Your task to perform on an android device: clear all cookies in the chrome app Image 0: 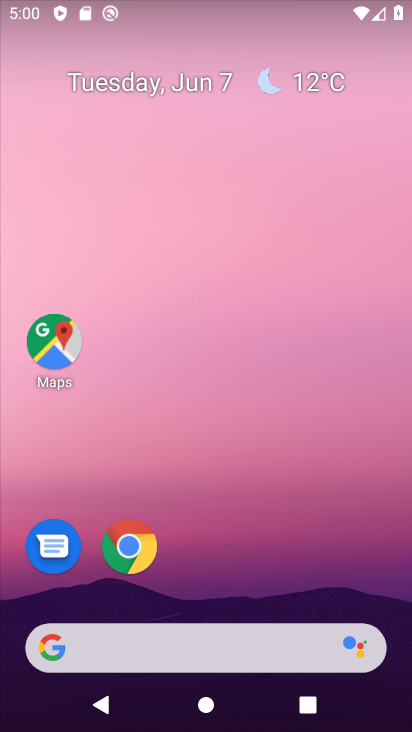
Step 0: drag from (272, 600) to (363, 54)
Your task to perform on an android device: clear all cookies in the chrome app Image 1: 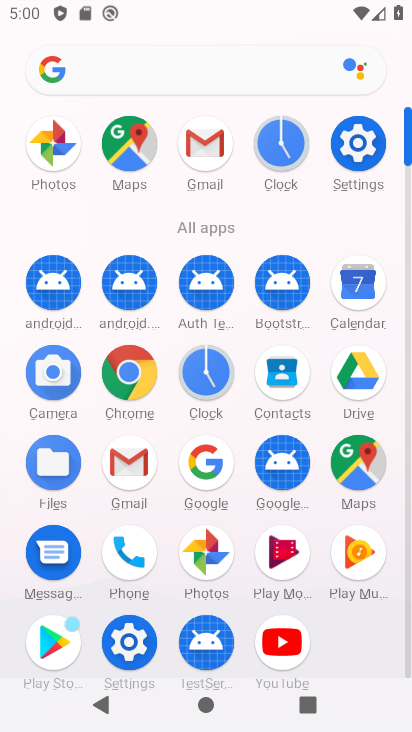
Step 1: click (137, 376)
Your task to perform on an android device: clear all cookies in the chrome app Image 2: 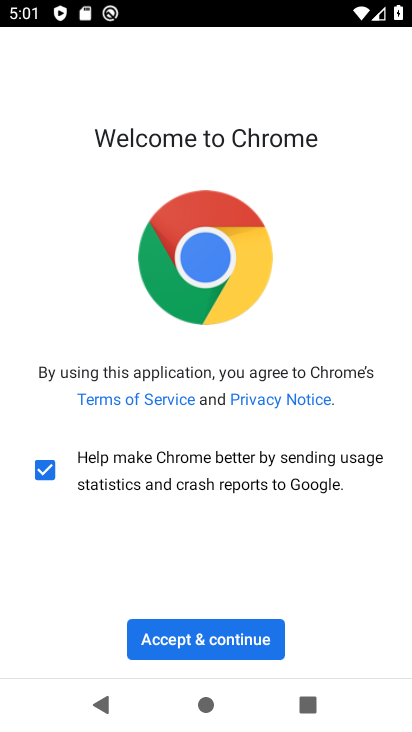
Step 2: click (234, 637)
Your task to perform on an android device: clear all cookies in the chrome app Image 3: 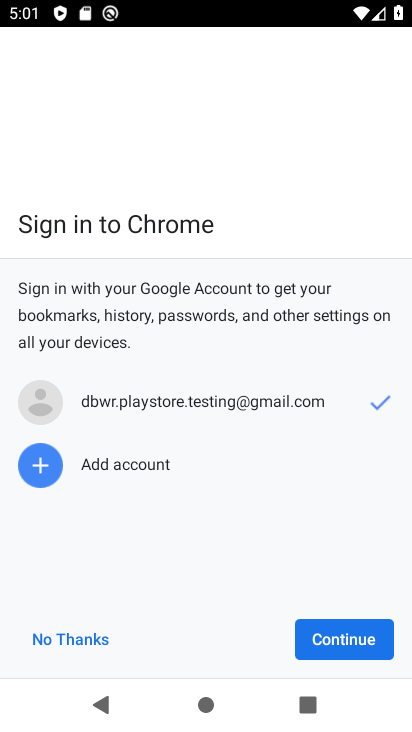
Step 3: click (330, 638)
Your task to perform on an android device: clear all cookies in the chrome app Image 4: 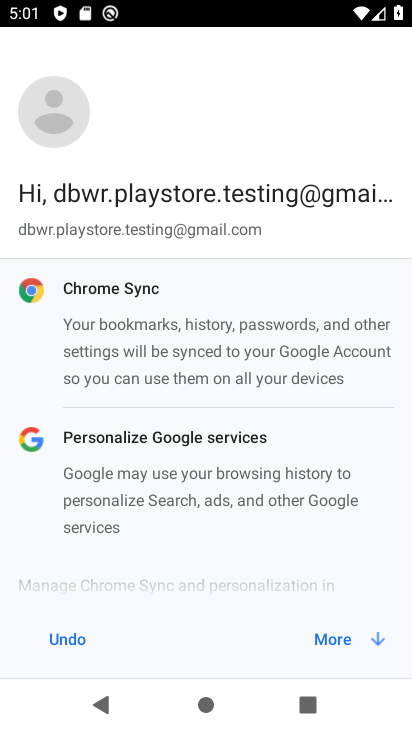
Step 4: click (330, 638)
Your task to perform on an android device: clear all cookies in the chrome app Image 5: 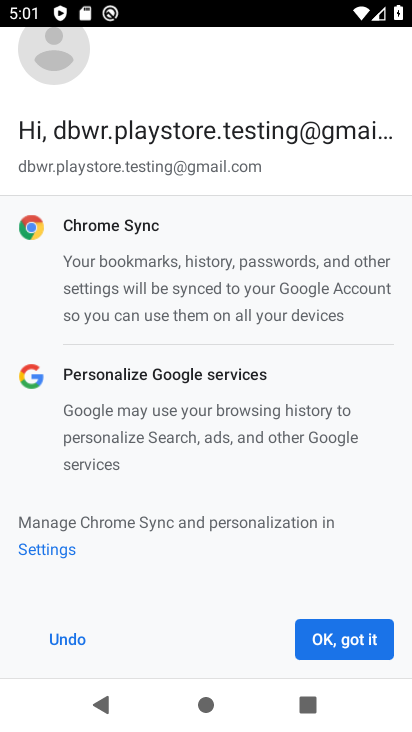
Step 5: click (330, 638)
Your task to perform on an android device: clear all cookies in the chrome app Image 6: 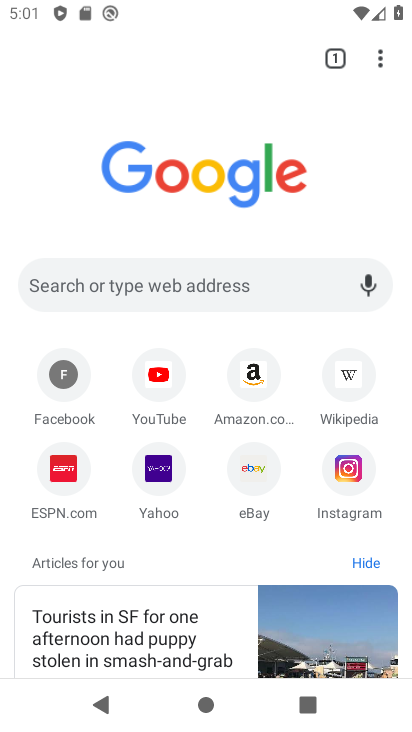
Step 6: drag from (382, 64) to (217, 340)
Your task to perform on an android device: clear all cookies in the chrome app Image 7: 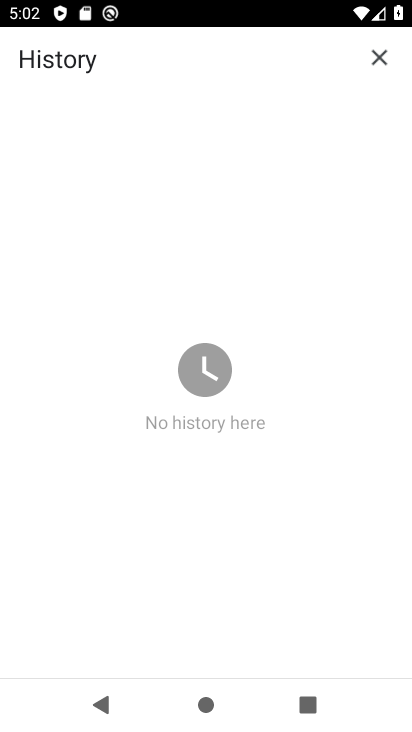
Step 7: press back button
Your task to perform on an android device: clear all cookies in the chrome app Image 8: 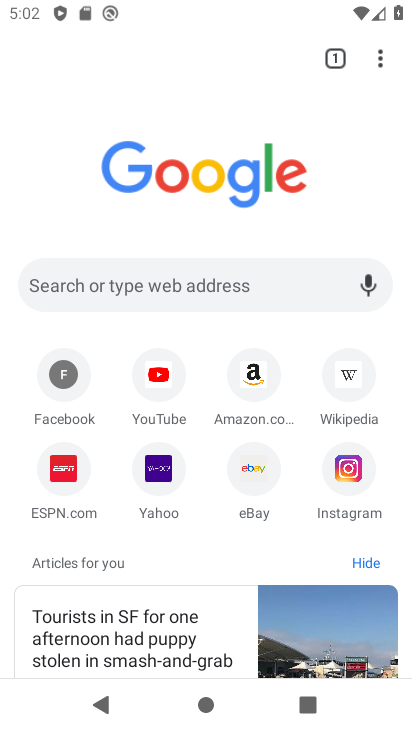
Step 8: drag from (378, 51) to (190, 504)
Your task to perform on an android device: clear all cookies in the chrome app Image 9: 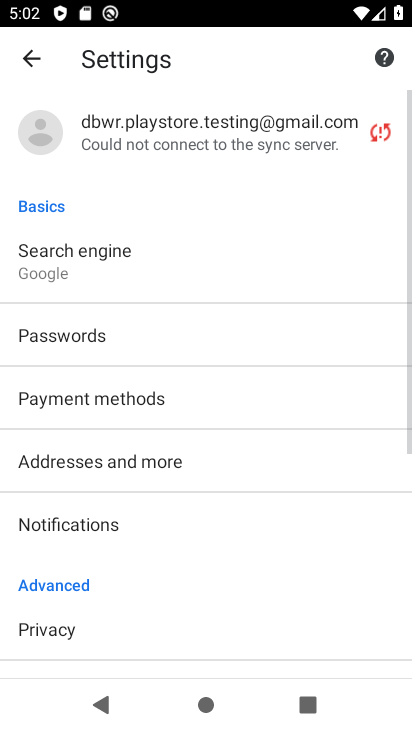
Step 9: drag from (199, 622) to (237, 259)
Your task to perform on an android device: clear all cookies in the chrome app Image 10: 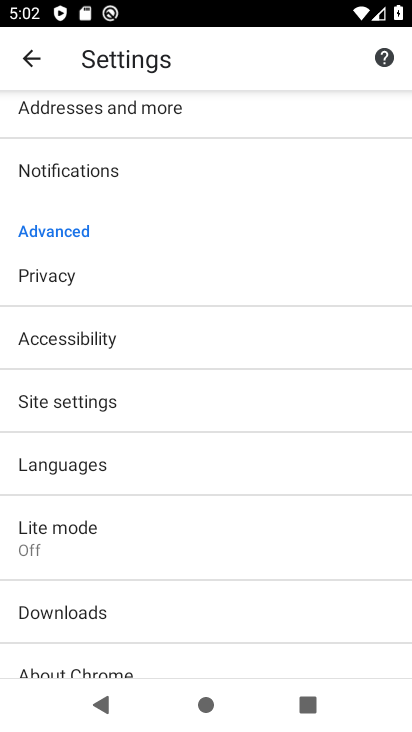
Step 10: click (39, 274)
Your task to perform on an android device: clear all cookies in the chrome app Image 11: 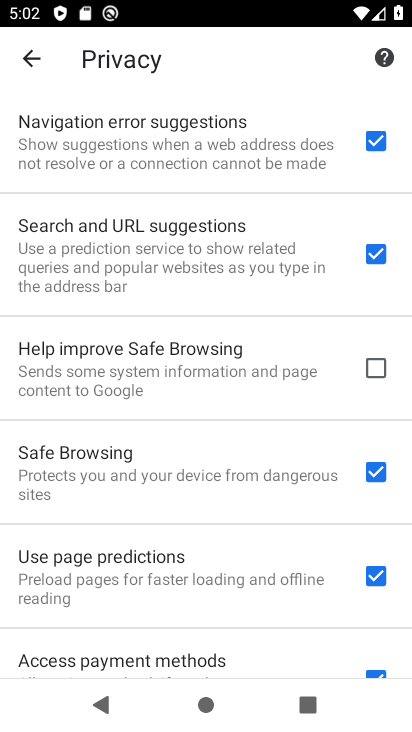
Step 11: drag from (230, 591) to (316, 114)
Your task to perform on an android device: clear all cookies in the chrome app Image 12: 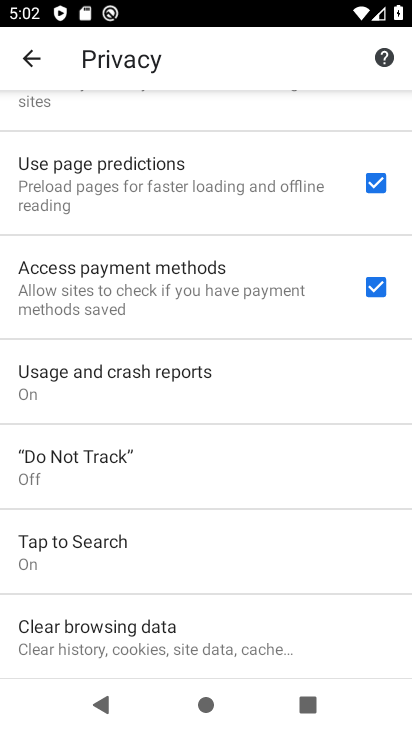
Step 12: drag from (146, 614) to (221, 291)
Your task to perform on an android device: clear all cookies in the chrome app Image 13: 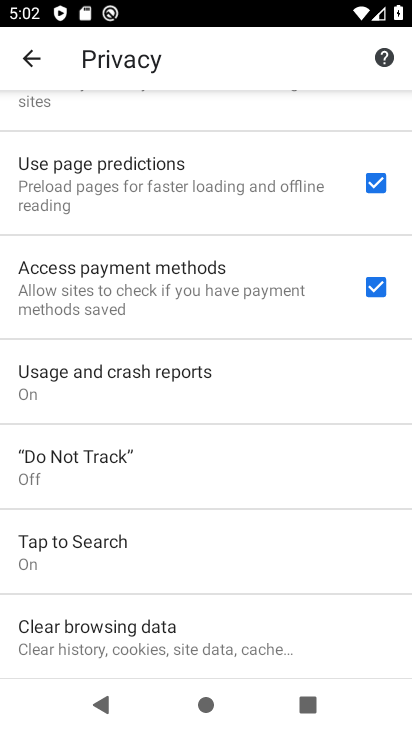
Step 13: click (130, 627)
Your task to perform on an android device: clear all cookies in the chrome app Image 14: 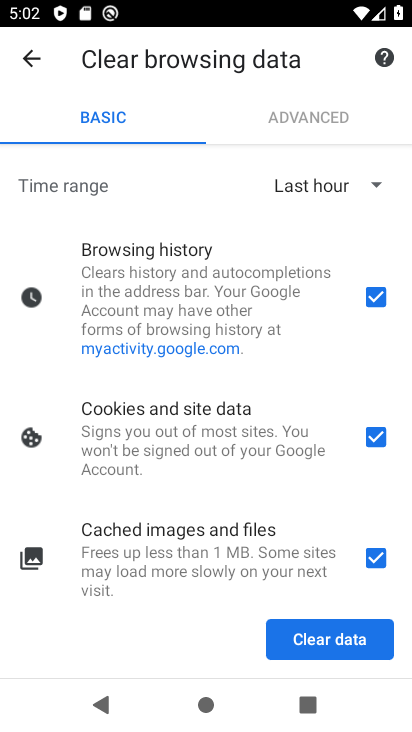
Step 14: click (339, 635)
Your task to perform on an android device: clear all cookies in the chrome app Image 15: 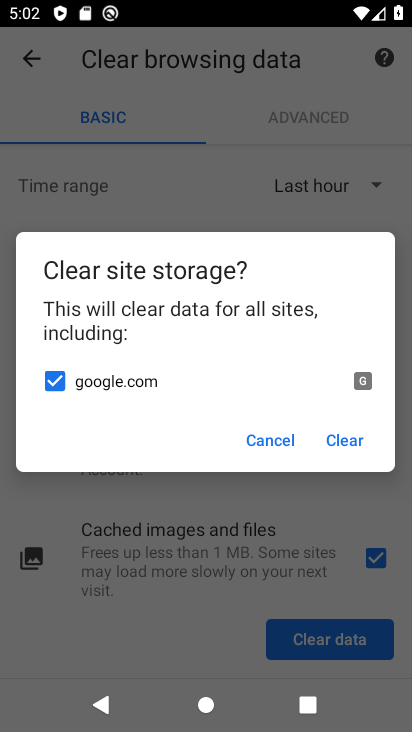
Step 15: click (341, 431)
Your task to perform on an android device: clear all cookies in the chrome app Image 16: 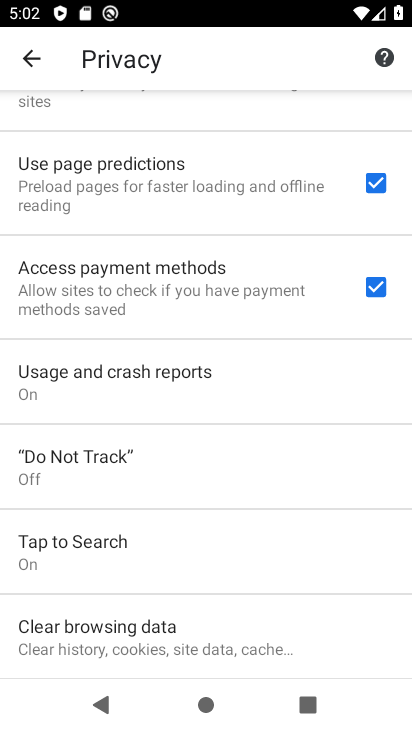
Step 16: task complete